Your task to perform on an android device: set the timer Image 0: 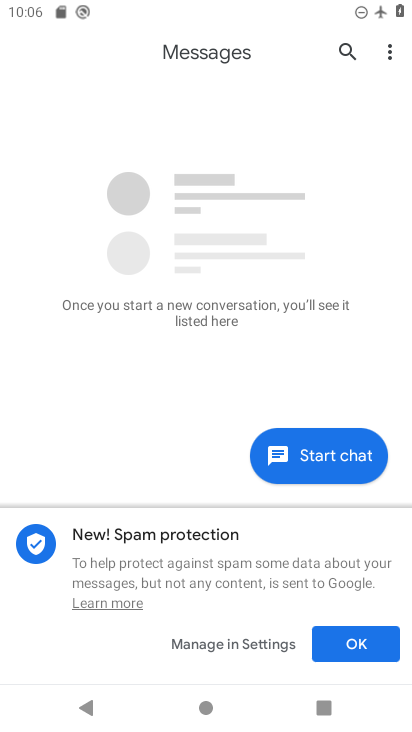
Step 0: press home button
Your task to perform on an android device: set the timer Image 1: 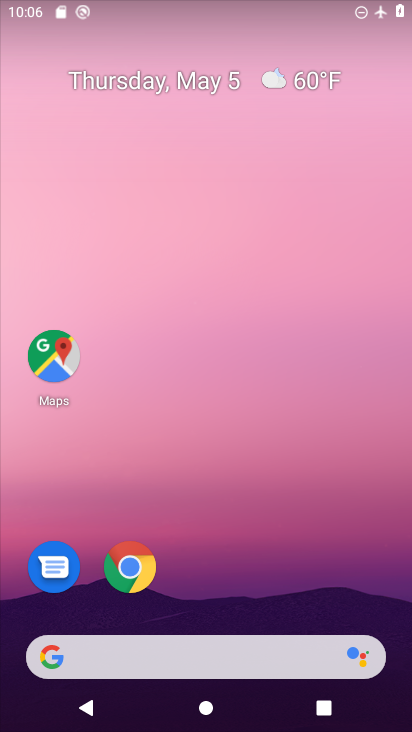
Step 1: drag from (217, 727) to (220, 223)
Your task to perform on an android device: set the timer Image 2: 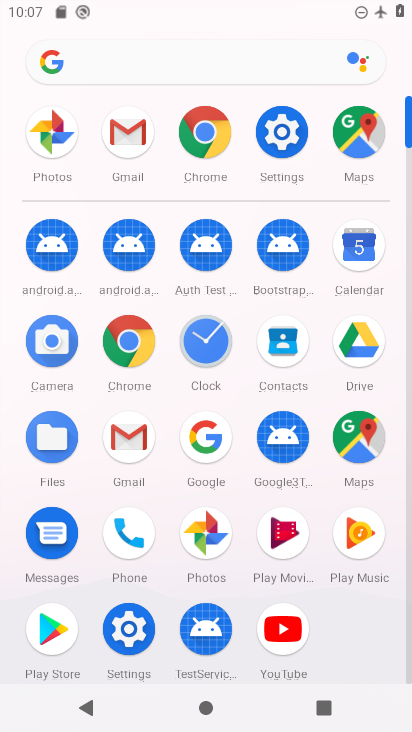
Step 2: click (204, 346)
Your task to perform on an android device: set the timer Image 3: 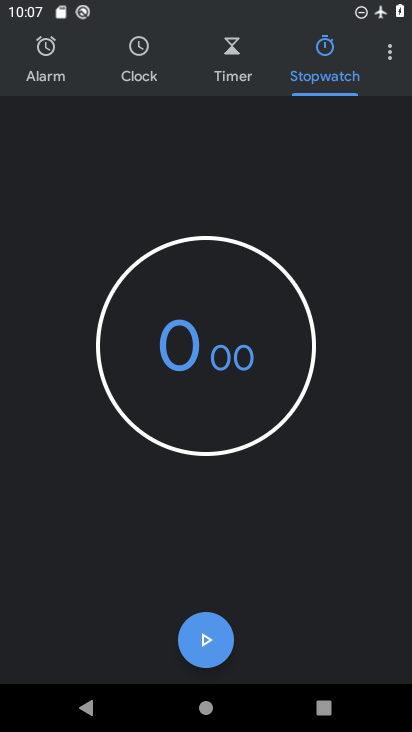
Step 3: click (228, 55)
Your task to perform on an android device: set the timer Image 4: 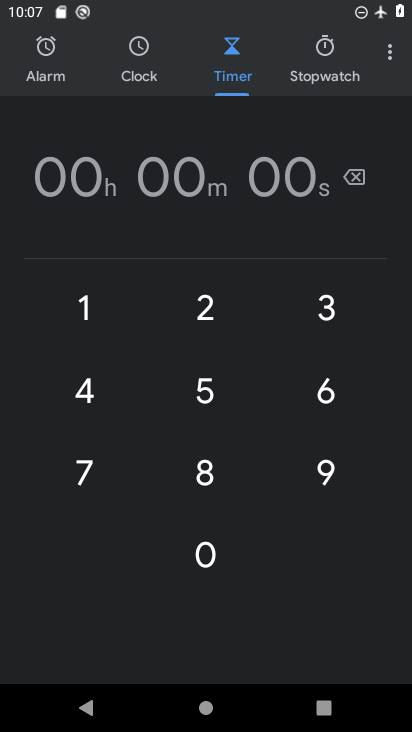
Step 4: click (202, 302)
Your task to perform on an android device: set the timer Image 5: 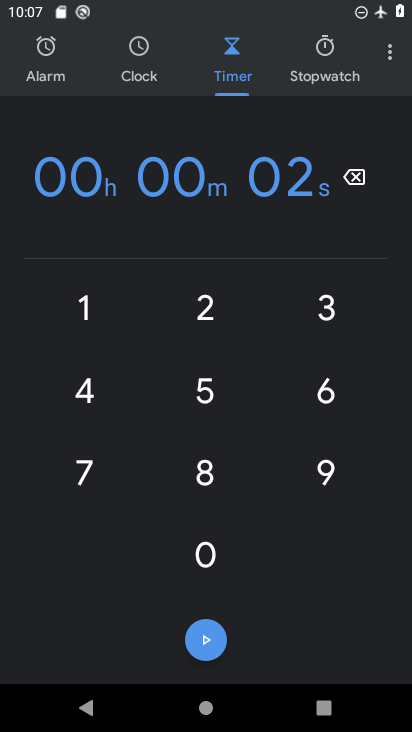
Step 5: click (200, 395)
Your task to perform on an android device: set the timer Image 6: 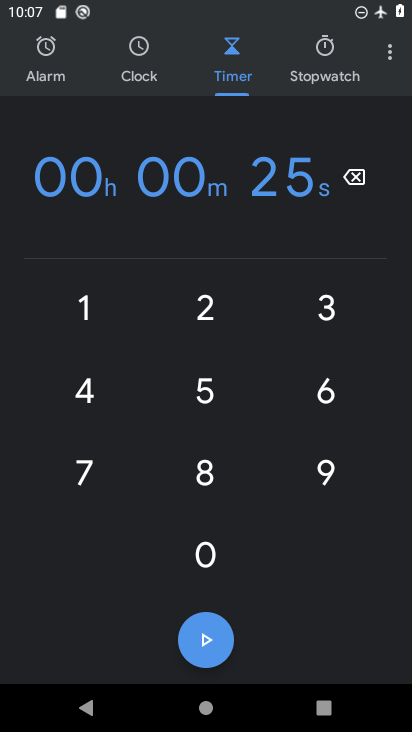
Step 6: click (79, 386)
Your task to perform on an android device: set the timer Image 7: 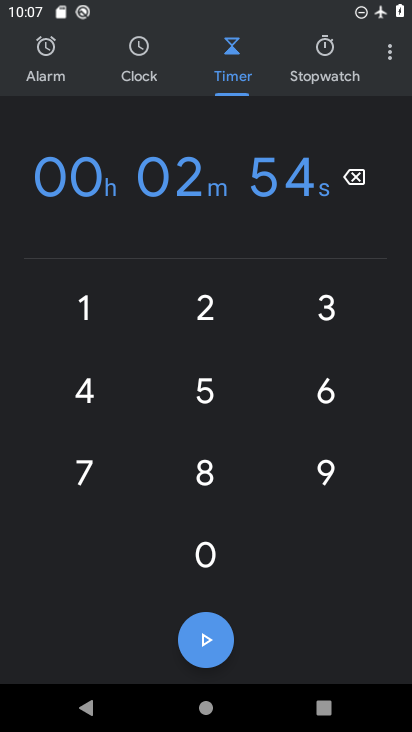
Step 7: click (200, 310)
Your task to perform on an android device: set the timer Image 8: 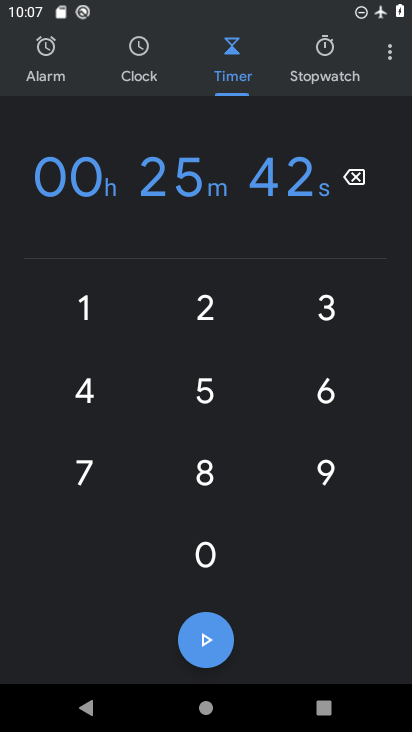
Step 8: click (344, 304)
Your task to perform on an android device: set the timer Image 9: 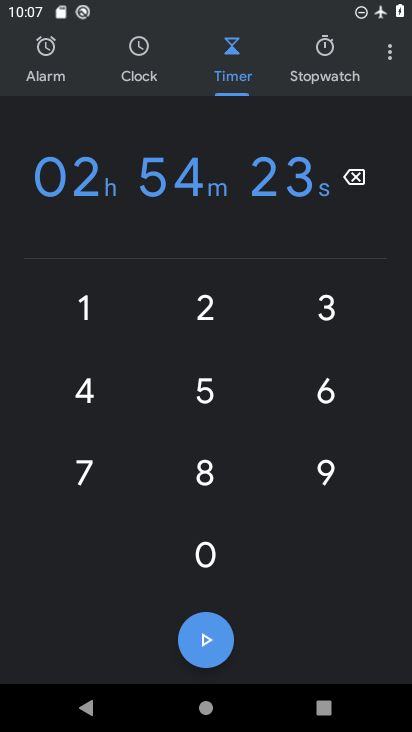
Step 9: click (212, 642)
Your task to perform on an android device: set the timer Image 10: 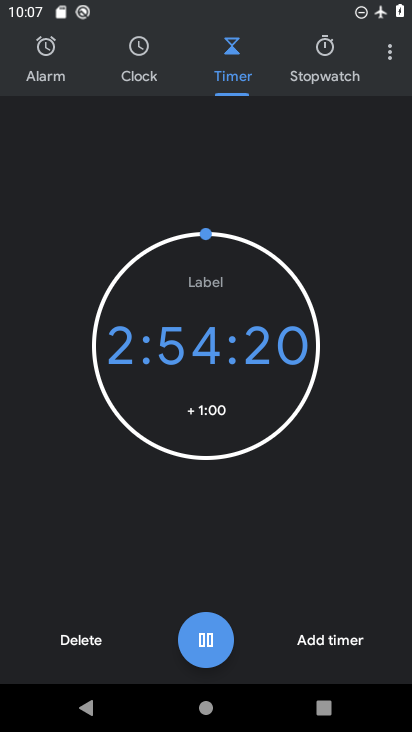
Step 10: task complete